Your task to perform on an android device: Play the last video I watched on Youtube Image 0: 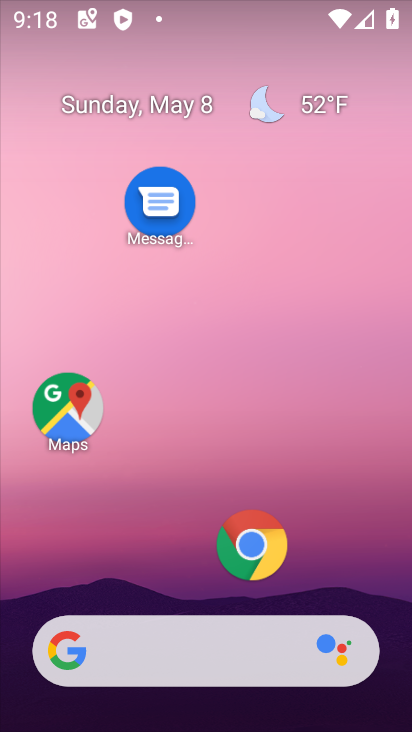
Step 0: drag from (220, 612) to (370, 371)
Your task to perform on an android device: Play the last video I watched on Youtube Image 1: 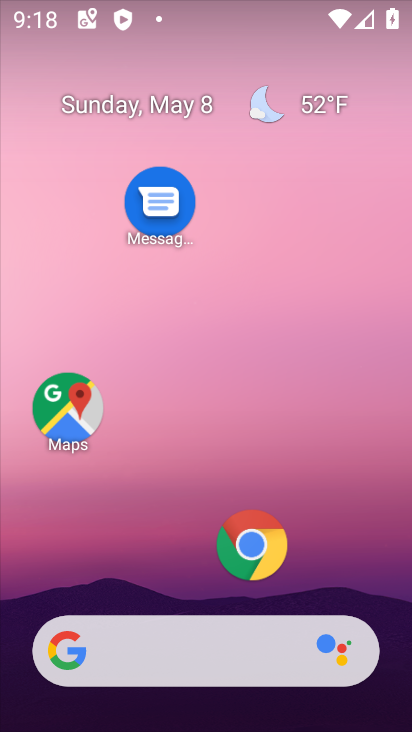
Step 1: drag from (196, 598) to (305, 8)
Your task to perform on an android device: Play the last video I watched on Youtube Image 2: 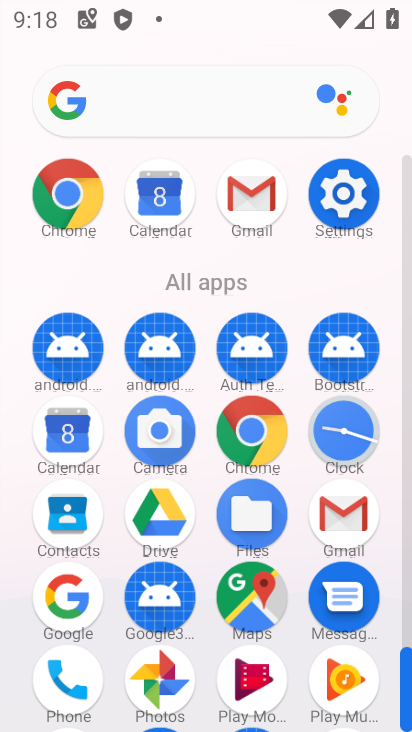
Step 2: drag from (200, 571) to (196, 13)
Your task to perform on an android device: Play the last video I watched on Youtube Image 3: 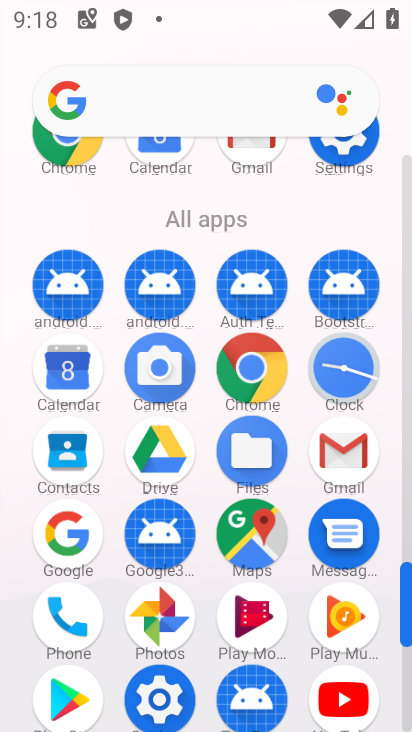
Step 3: click (358, 685)
Your task to perform on an android device: Play the last video I watched on Youtube Image 4: 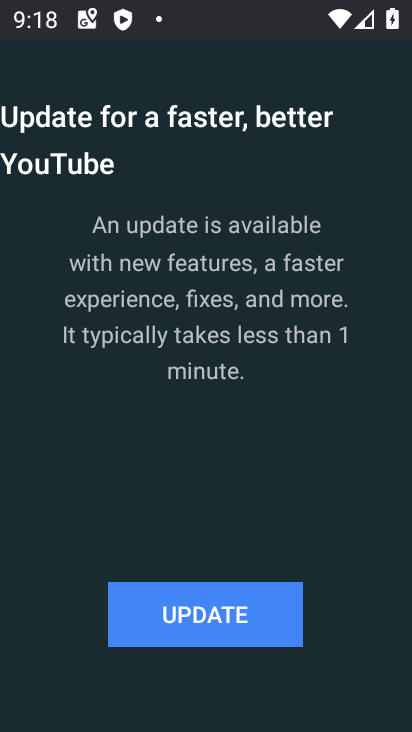
Step 4: click (217, 623)
Your task to perform on an android device: Play the last video I watched on Youtube Image 5: 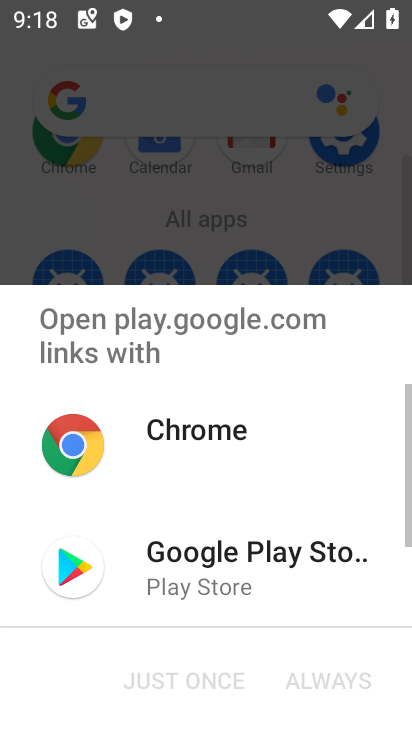
Step 5: click (118, 583)
Your task to perform on an android device: Play the last video I watched on Youtube Image 6: 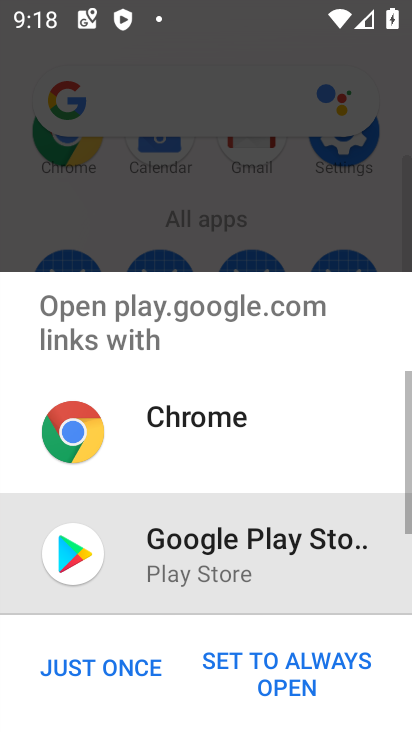
Step 6: click (124, 660)
Your task to perform on an android device: Play the last video I watched on Youtube Image 7: 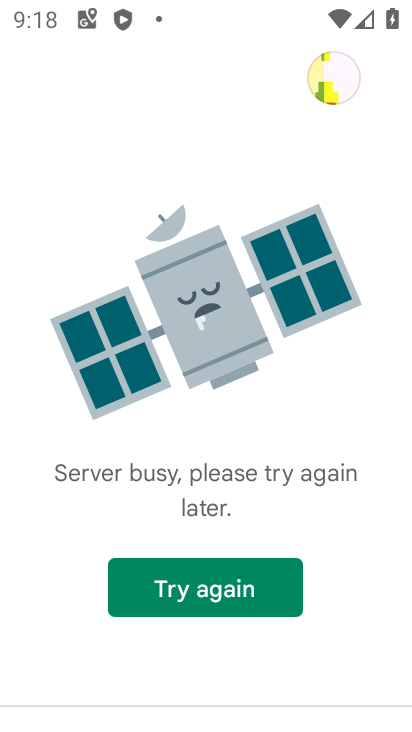
Step 7: click (213, 608)
Your task to perform on an android device: Play the last video I watched on Youtube Image 8: 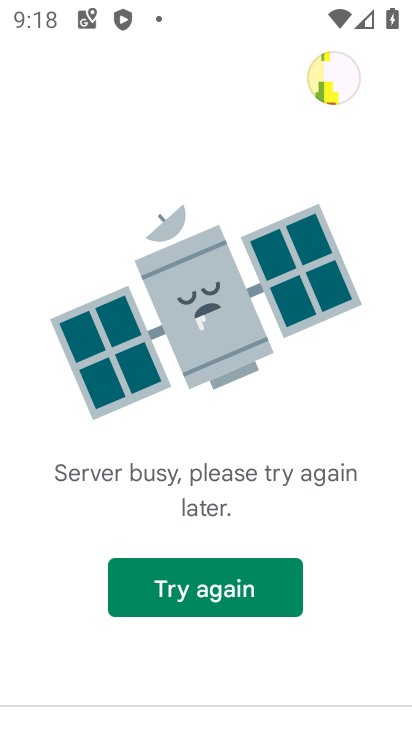
Step 8: click (247, 594)
Your task to perform on an android device: Play the last video I watched on Youtube Image 9: 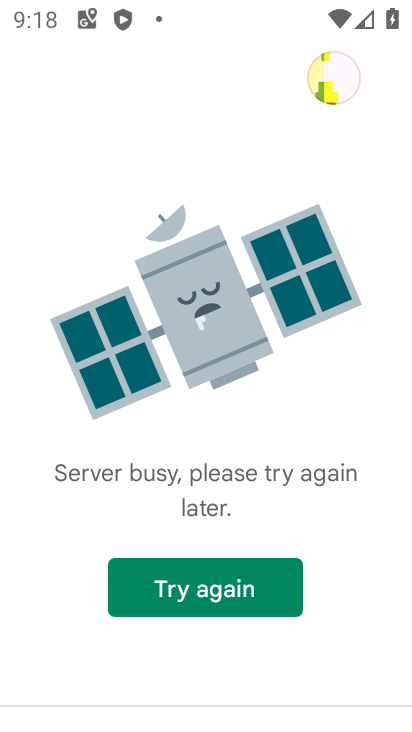
Step 9: task complete